Your task to perform on an android device: open app "ColorNote Notepad Notes" (install if not already installed) Image 0: 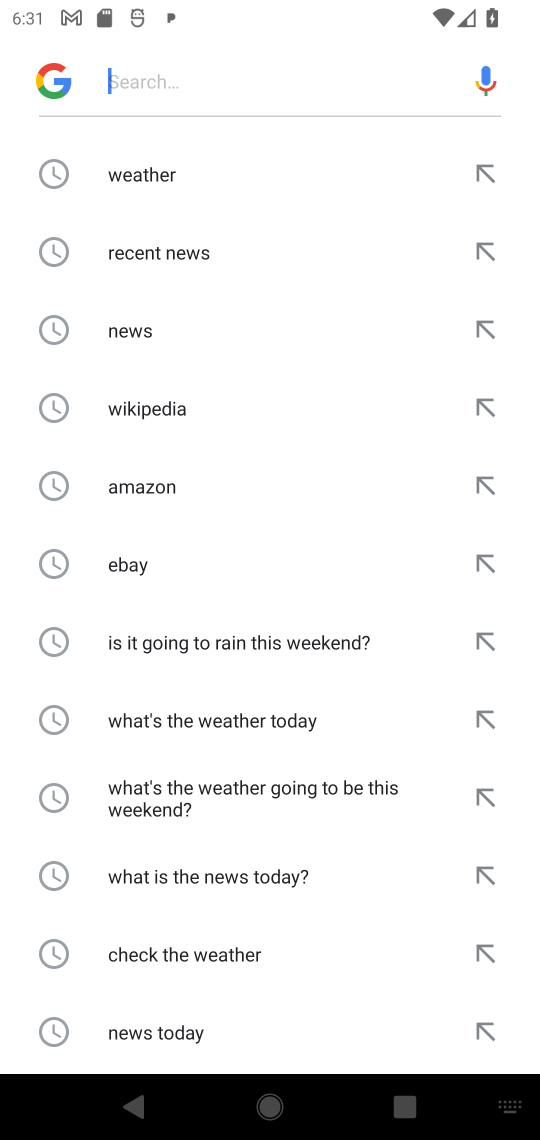
Step 0: press back button
Your task to perform on an android device: open app "ColorNote Notepad Notes" (install if not already installed) Image 1: 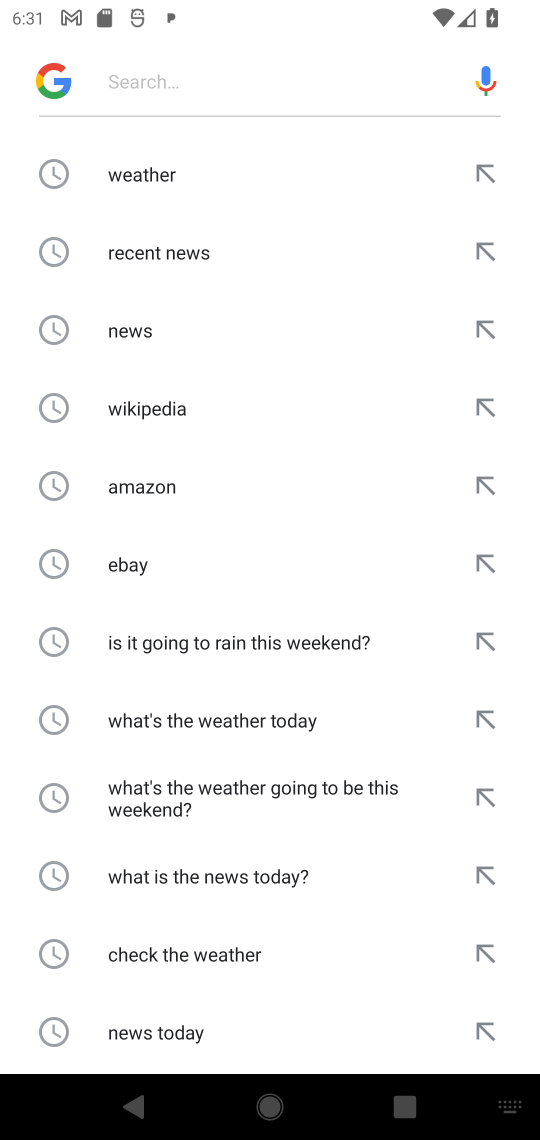
Step 1: press back button
Your task to perform on an android device: open app "ColorNote Notepad Notes" (install if not already installed) Image 2: 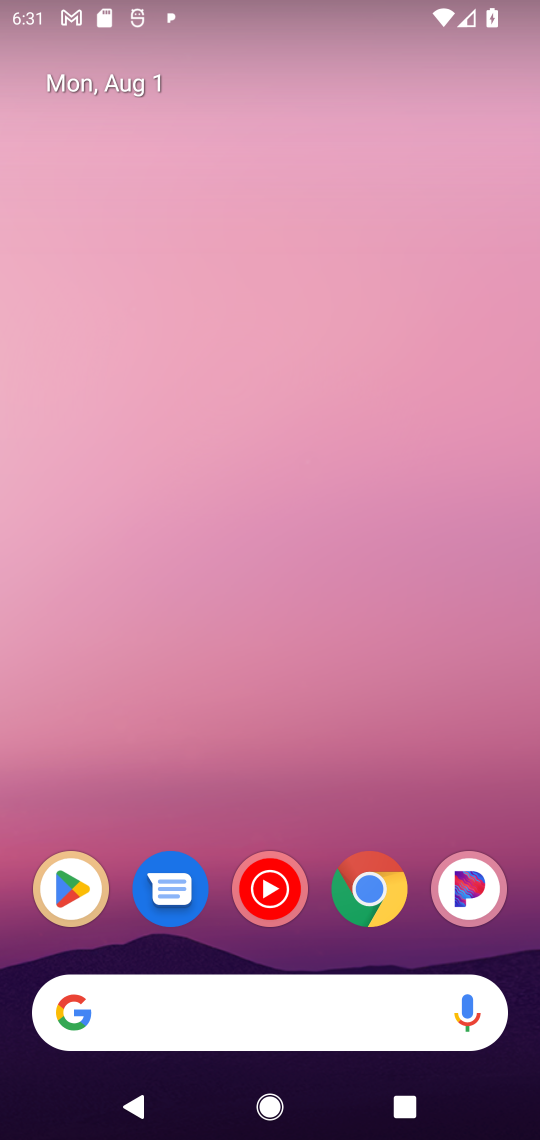
Step 2: drag from (326, 911) to (213, 148)
Your task to perform on an android device: open app "ColorNote Notepad Notes" (install if not already installed) Image 3: 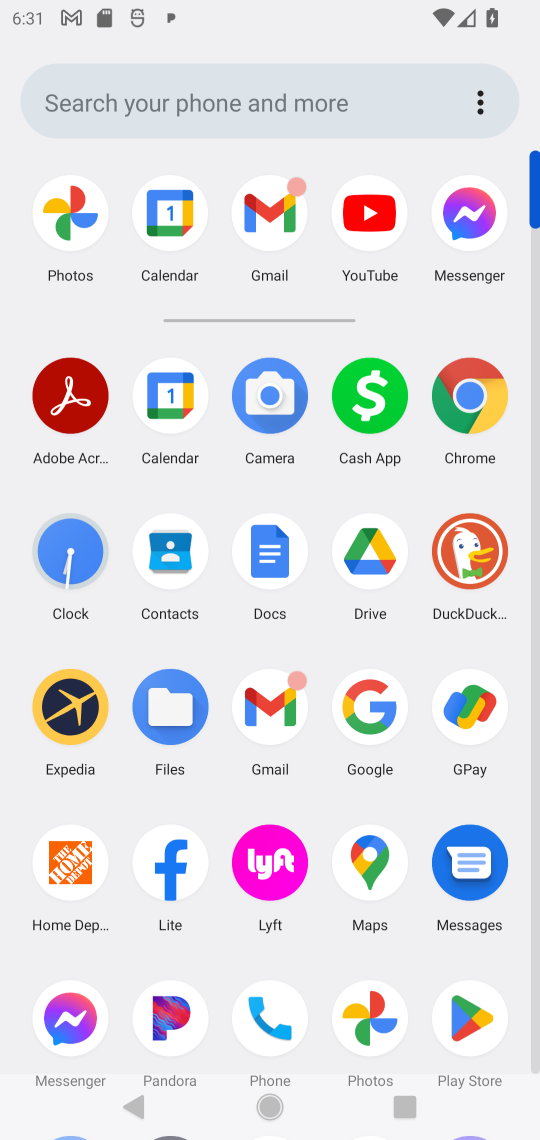
Step 3: click (260, 808)
Your task to perform on an android device: open app "ColorNote Notepad Notes" (install if not already installed) Image 4: 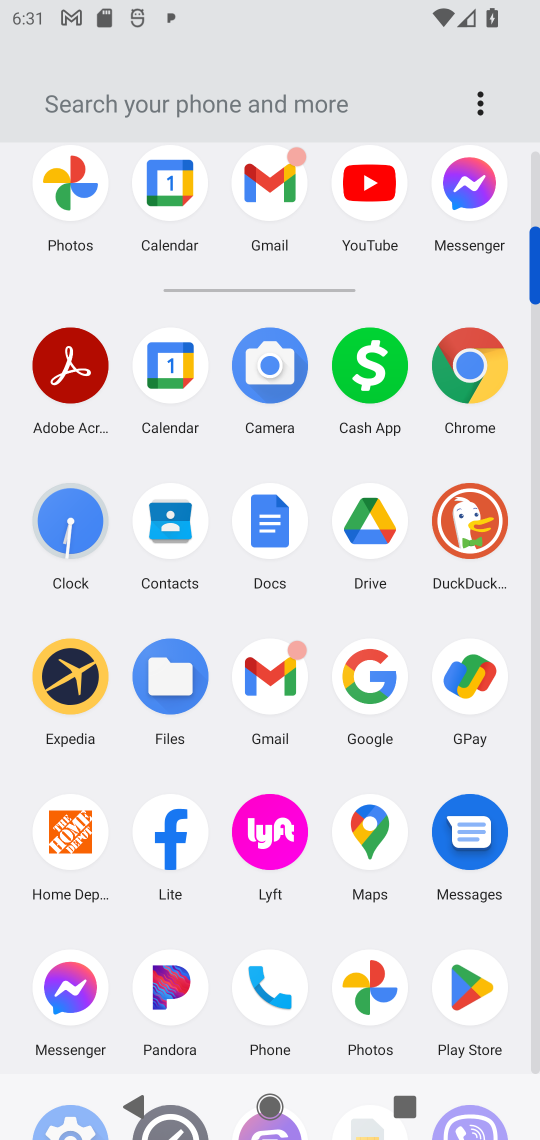
Step 4: drag from (409, 911) to (402, 354)
Your task to perform on an android device: open app "ColorNote Notepad Notes" (install if not already installed) Image 5: 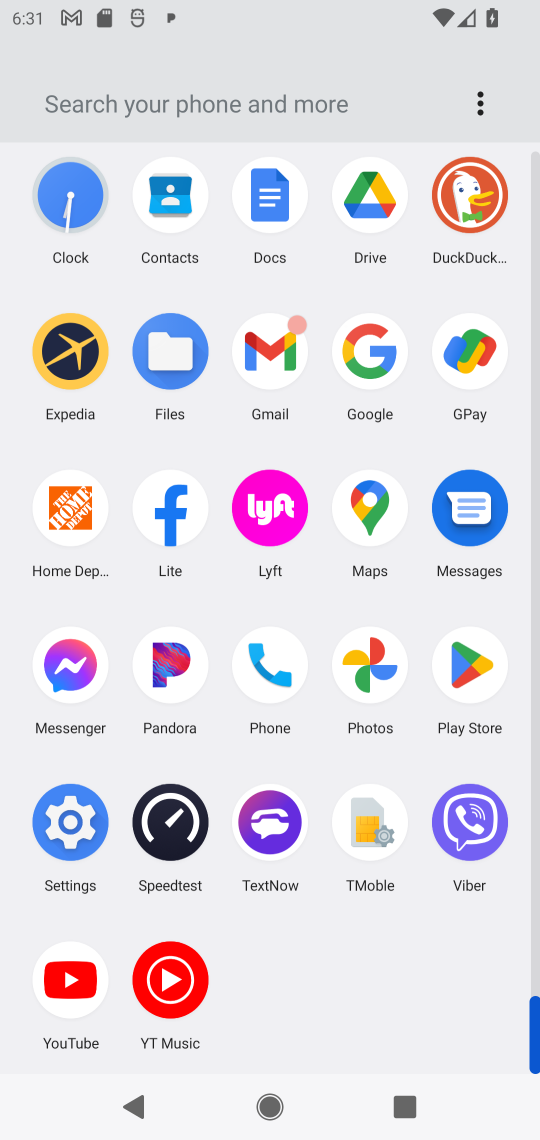
Step 5: drag from (407, 786) to (421, 183)
Your task to perform on an android device: open app "ColorNote Notepad Notes" (install if not already installed) Image 6: 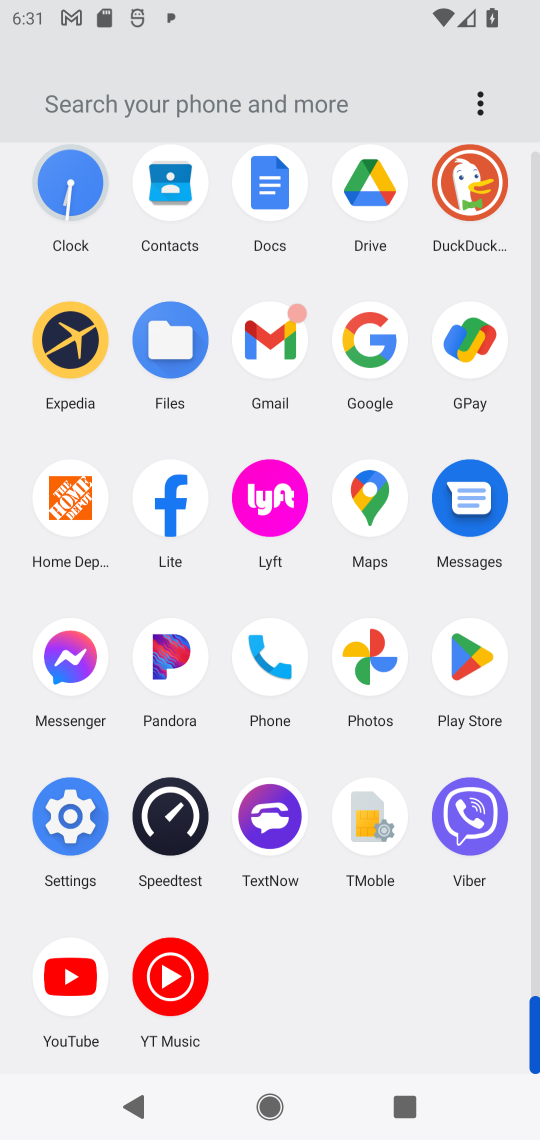
Step 6: click (392, 235)
Your task to perform on an android device: open app "ColorNote Notepad Notes" (install if not already installed) Image 7: 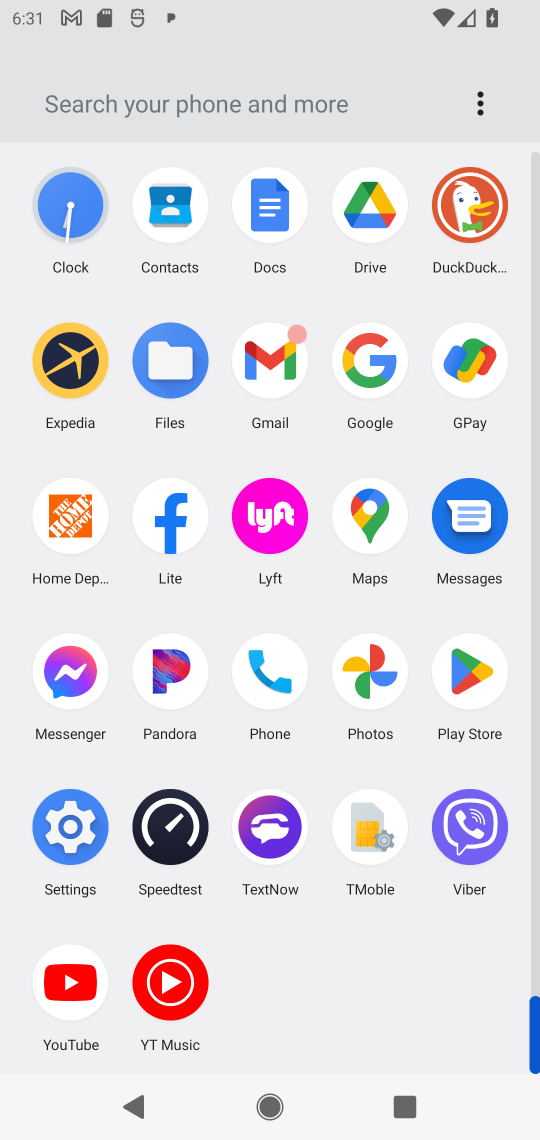
Step 7: click (473, 676)
Your task to perform on an android device: open app "ColorNote Notepad Notes" (install if not already installed) Image 8: 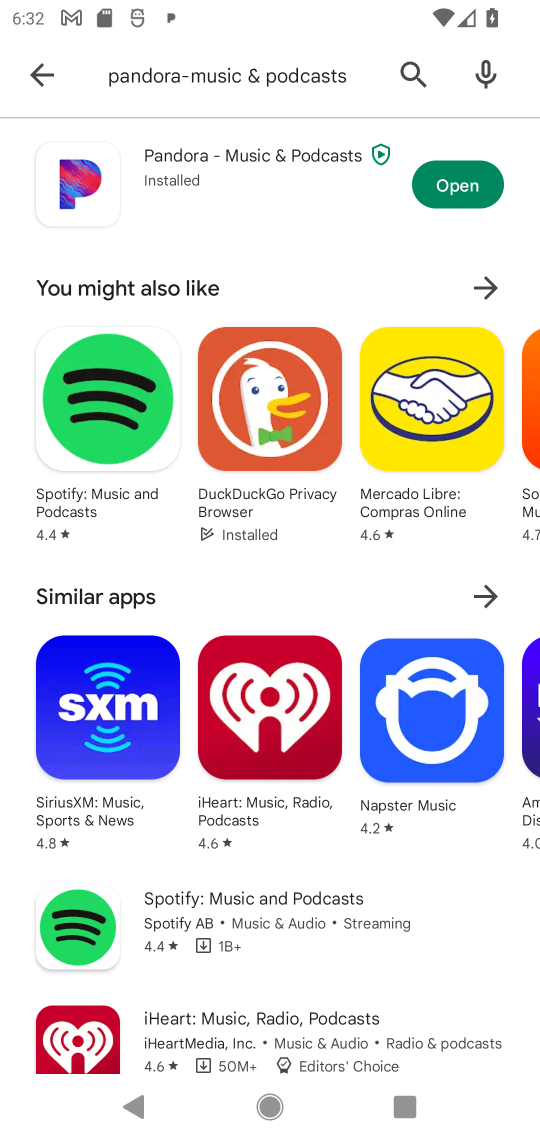
Step 8: click (36, 63)
Your task to perform on an android device: open app "ColorNote Notepad Notes" (install if not already installed) Image 9: 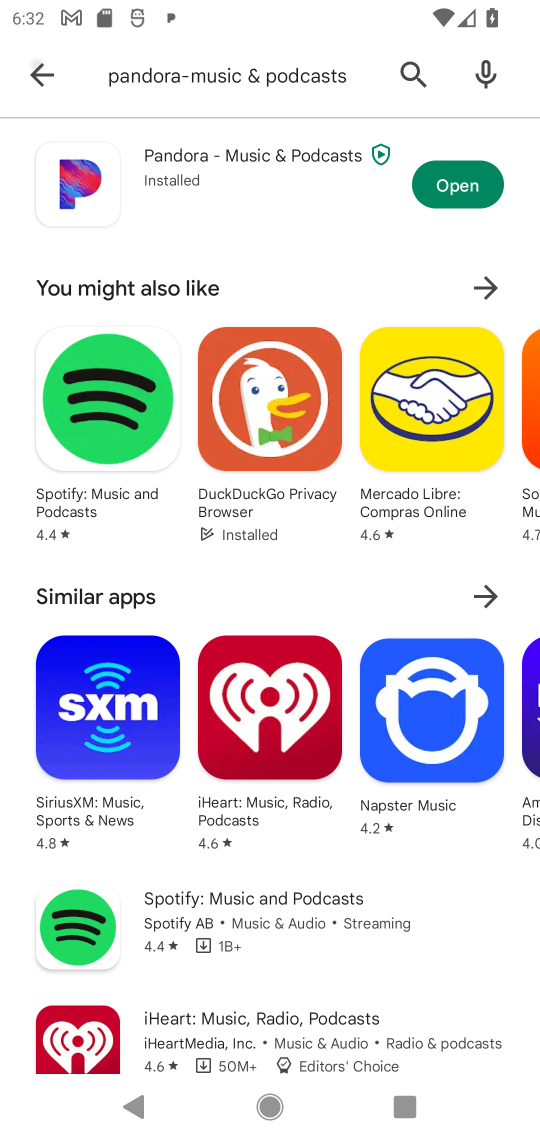
Step 9: click (37, 65)
Your task to perform on an android device: open app "ColorNote Notepad Notes" (install if not already installed) Image 10: 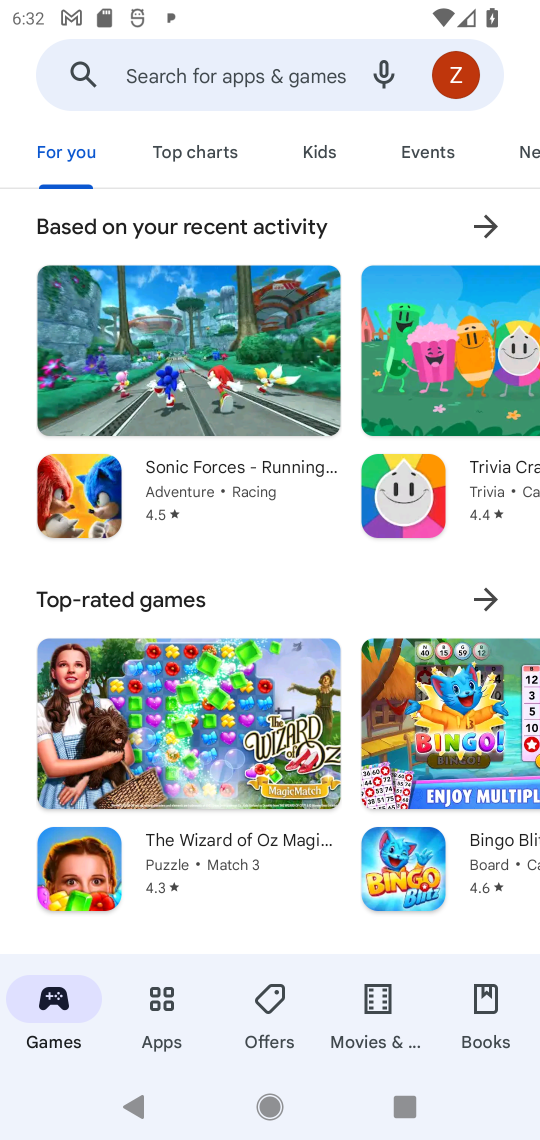
Step 10: click (173, 63)
Your task to perform on an android device: open app "ColorNote Notepad Notes" (install if not already installed) Image 11: 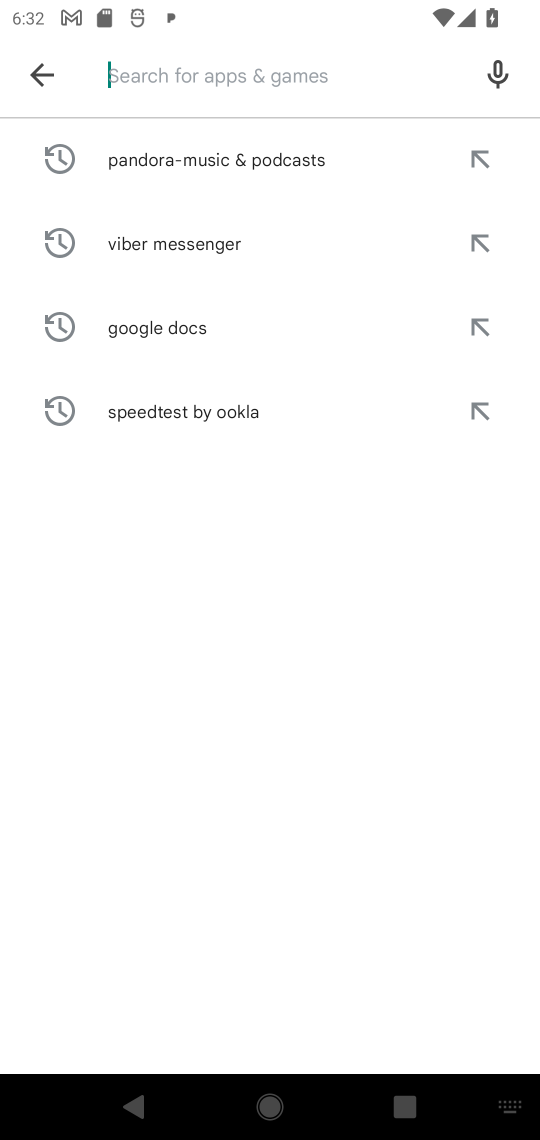
Step 11: type "colornote notepad"
Your task to perform on an android device: open app "ColorNote Notepad Notes" (install if not already installed) Image 12: 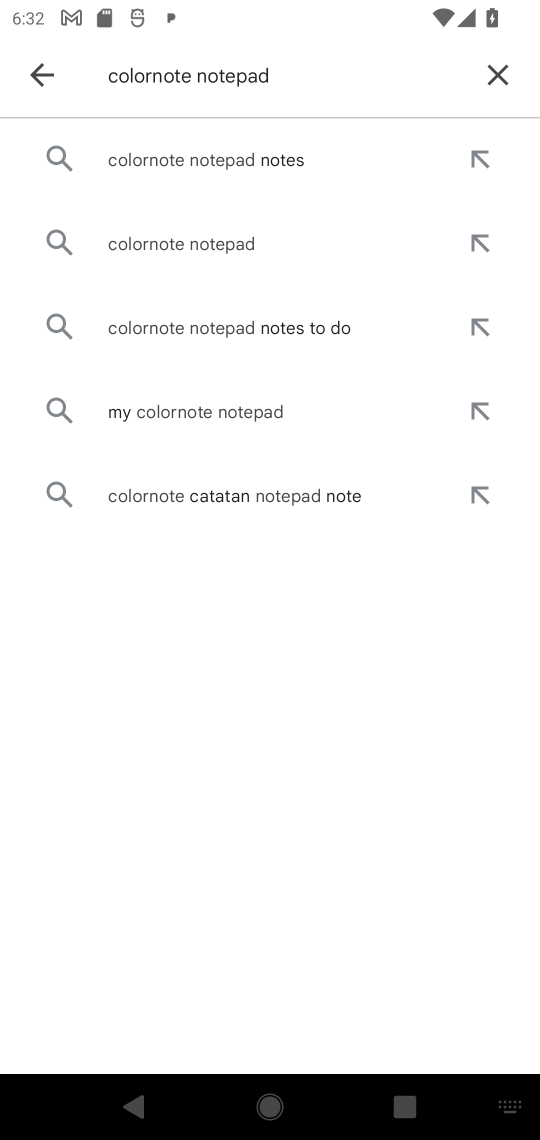
Step 12: click (227, 154)
Your task to perform on an android device: open app "ColorNote Notepad Notes" (install if not already installed) Image 13: 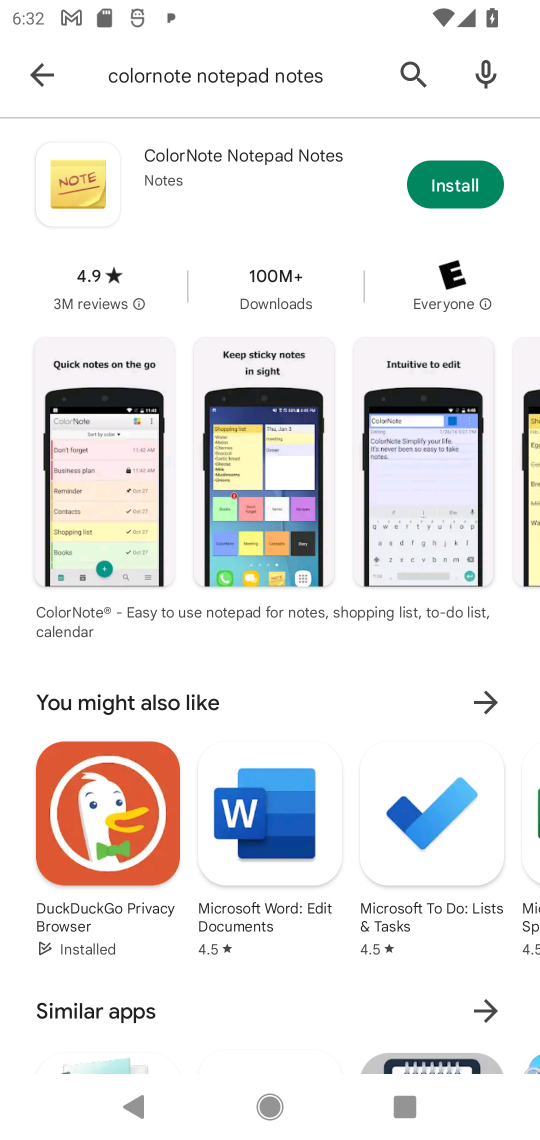
Step 13: click (469, 174)
Your task to perform on an android device: open app "ColorNote Notepad Notes" (install if not already installed) Image 14: 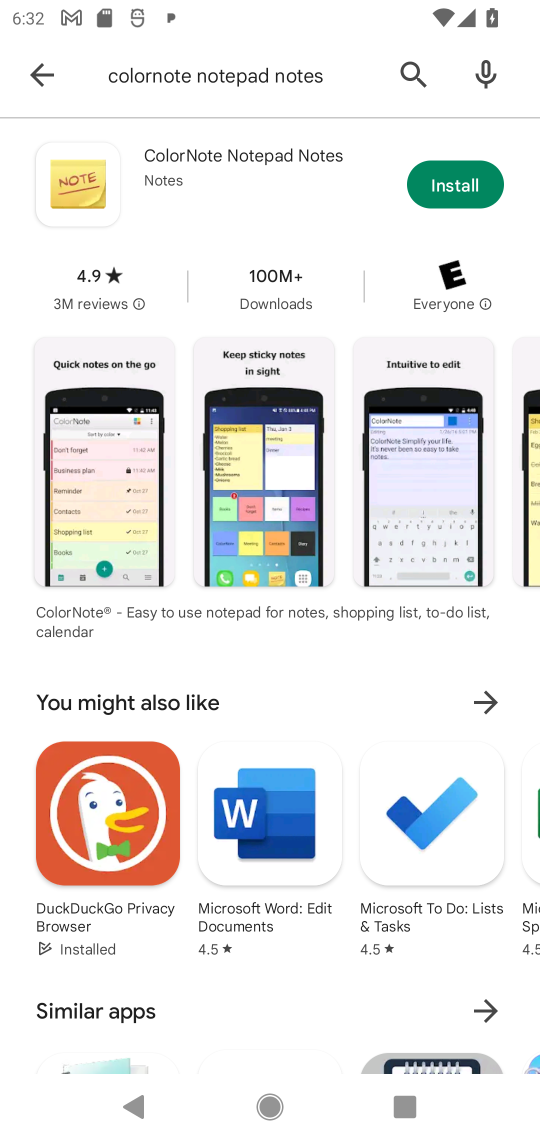
Step 14: click (454, 170)
Your task to perform on an android device: open app "ColorNote Notepad Notes" (install if not already installed) Image 15: 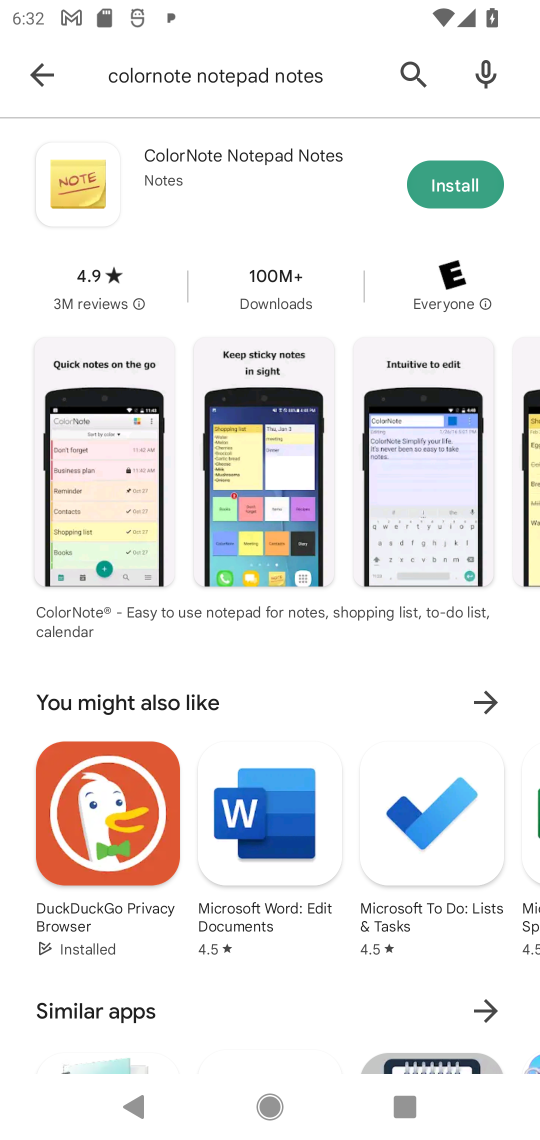
Step 15: click (454, 170)
Your task to perform on an android device: open app "ColorNote Notepad Notes" (install if not already installed) Image 16: 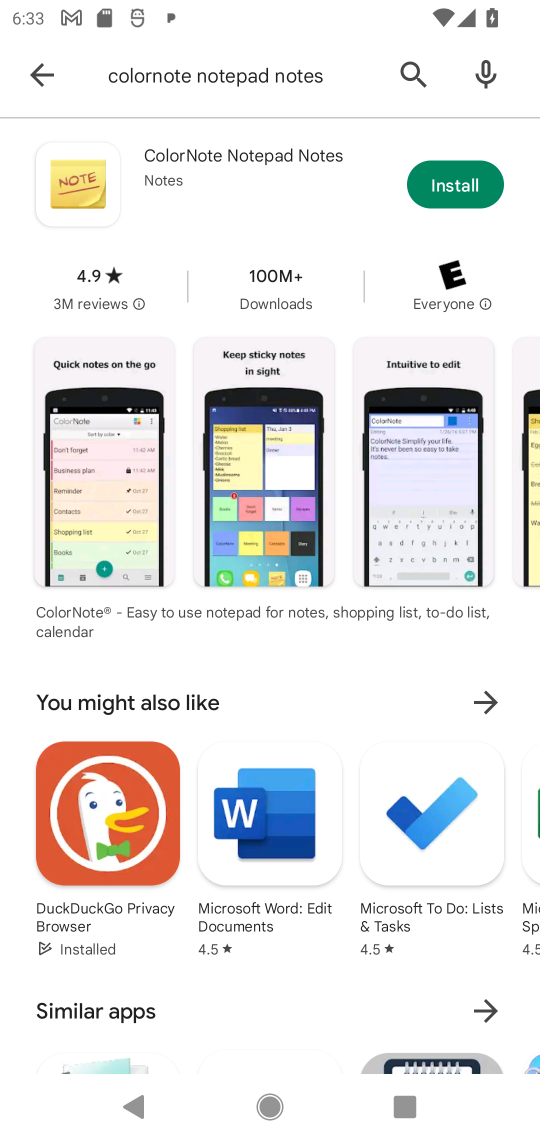
Step 16: click (447, 178)
Your task to perform on an android device: open app "ColorNote Notepad Notes" (install if not already installed) Image 17: 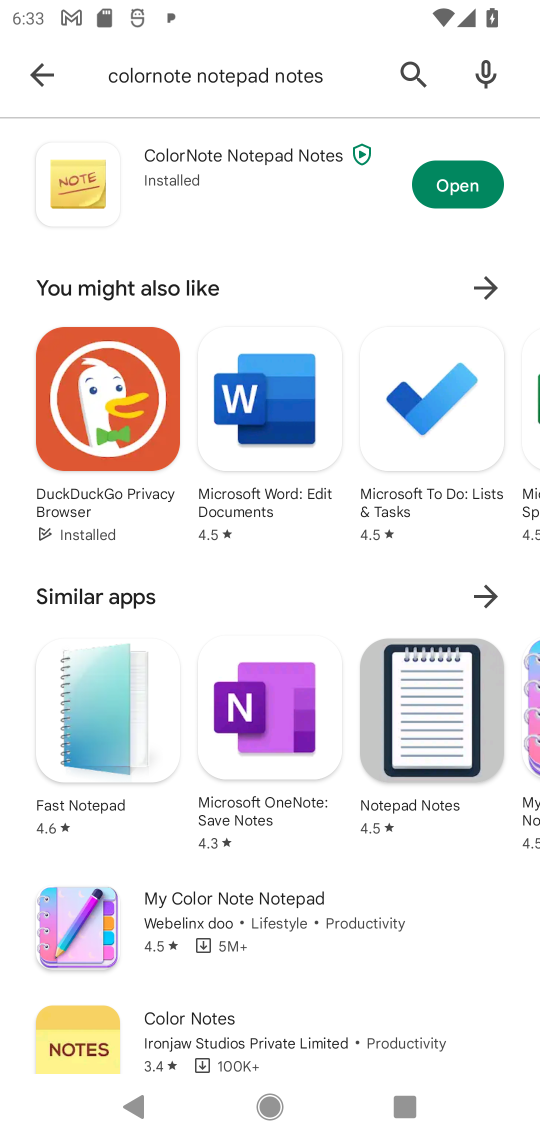
Step 17: click (469, 184)
Your task to perform on an android device: open app "ColorNote Notepad Notes" (install if not already installed) Image 18: 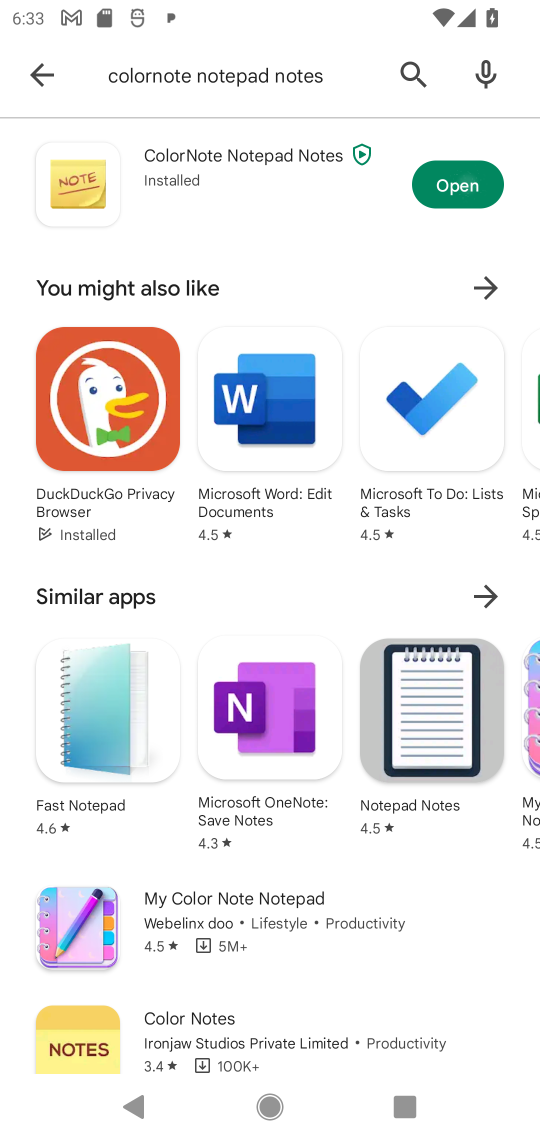
Step 18: click (469, 181)
Your task to perform on an android device: open app "ColorNote Notepad Notes" (install if not already installed) Image 19: 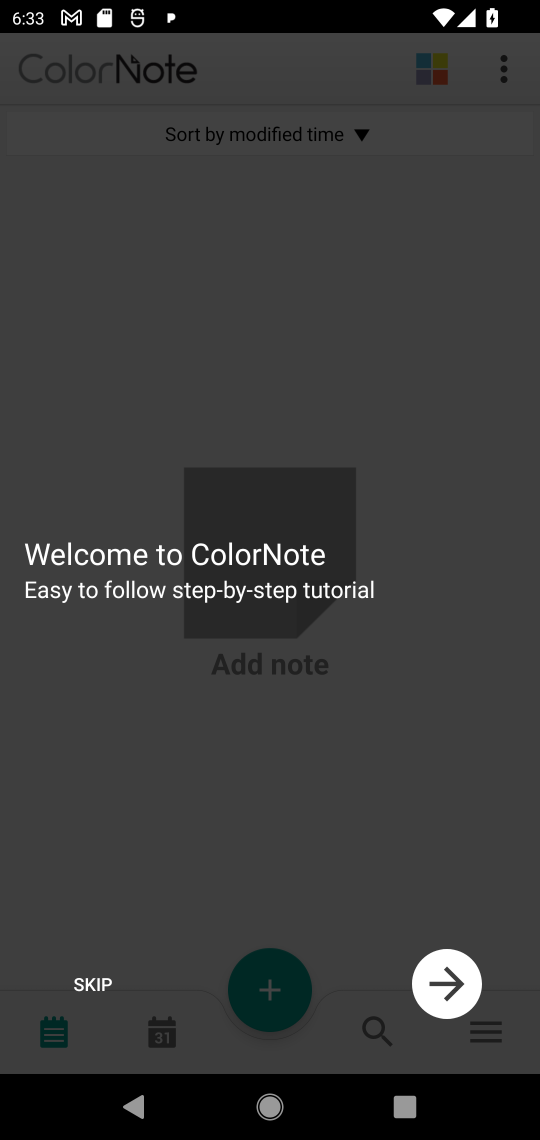
Step 19: click (90, 979)
Your task to perform on an android device: open app "ColorNote Notepad Notes" (install if not already installed) Image 20: 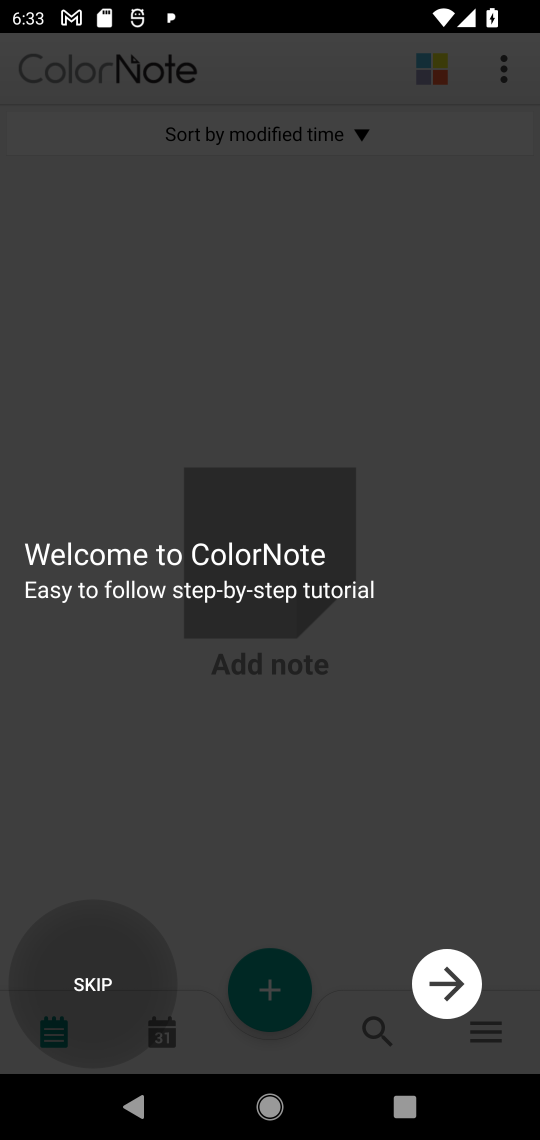
Step 20: click (88, 981)
Your task to perform on an android device: open app "ColorNote Notepad Notes" (install if not already installed) Image 21: 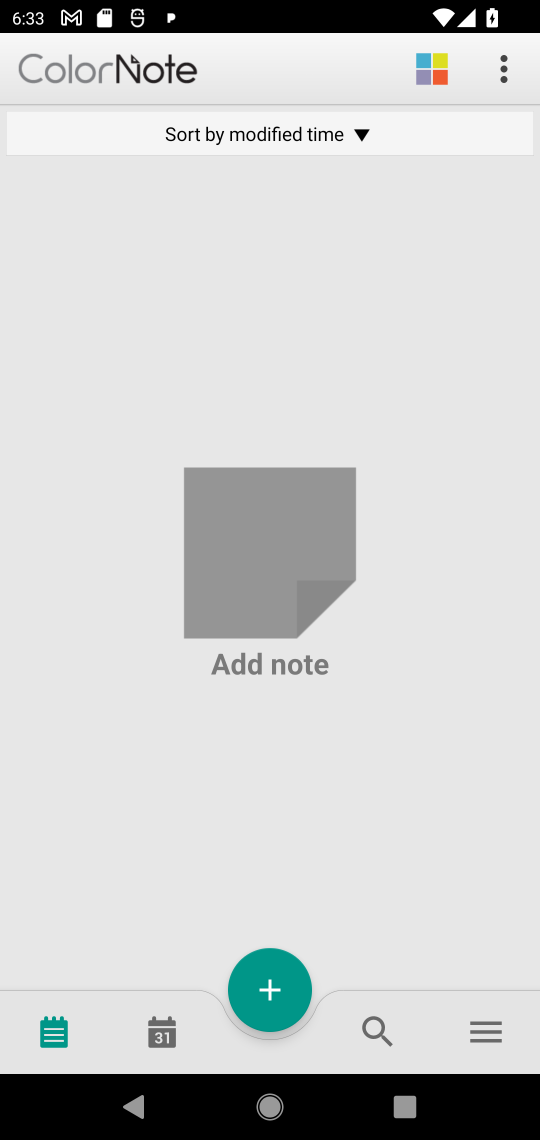
Step 21: click (88, 981)
Your task to perform on an android device: open app "ColorNote Notepad Notes" (install if not already installed) Image 22: 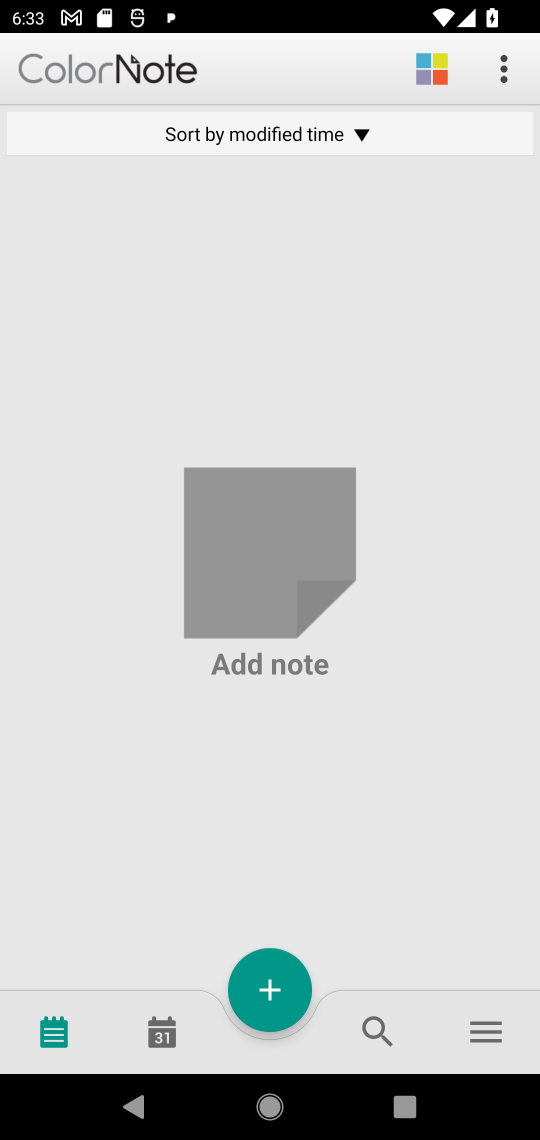
Step 22: task complete